Your task to perform on an android device: choose inbox layout in the gmail app Image 0: 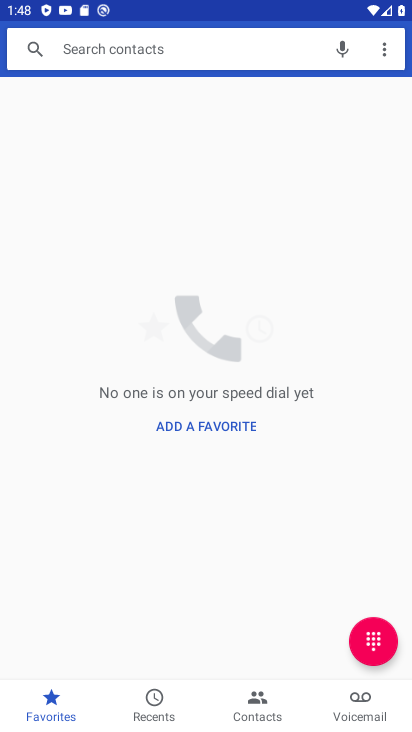
Step 0: press home button
Your task to perform on an android device: choose inbox layout in the gmail app Image 1: 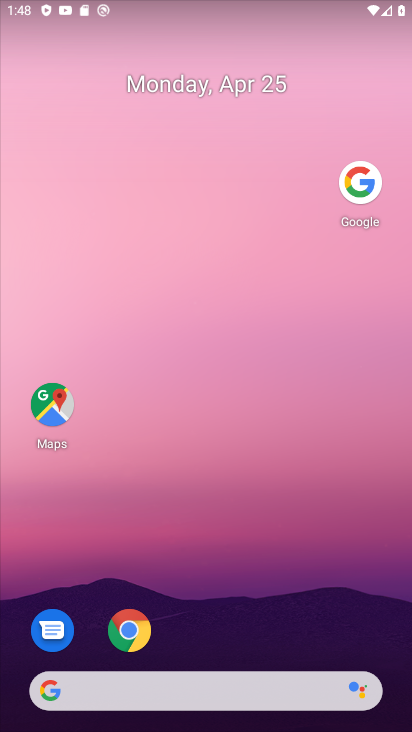
Step 1: drag from (198, 666) to (171, 39)
Your task to perform on an android device: choose inbox layout in the gmail app Image 2: 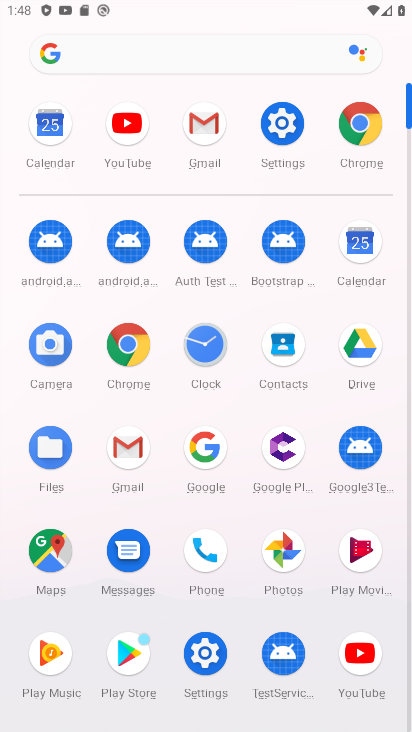
Step 2: click (135, 451)
Your task to perform on an android device: choose inbox layout in the gmail app Image 3: 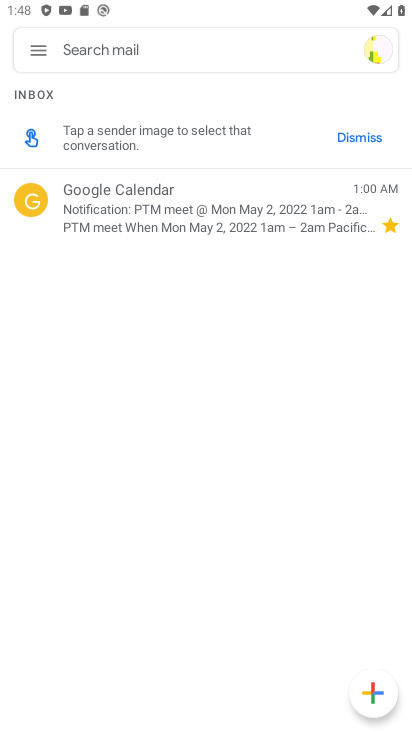
Step 3: task complete